Your task to perform on an android device: Go to privacy settings Image 0: 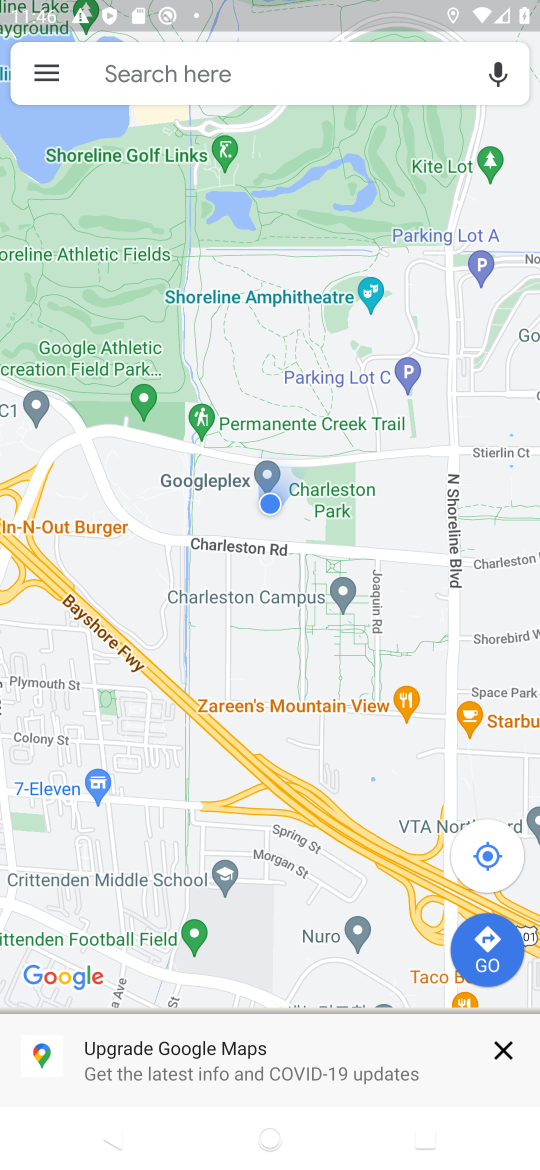
Step 0: click (287, 167)
Your task to perform on an android device: Go to privacy settings Image 1: 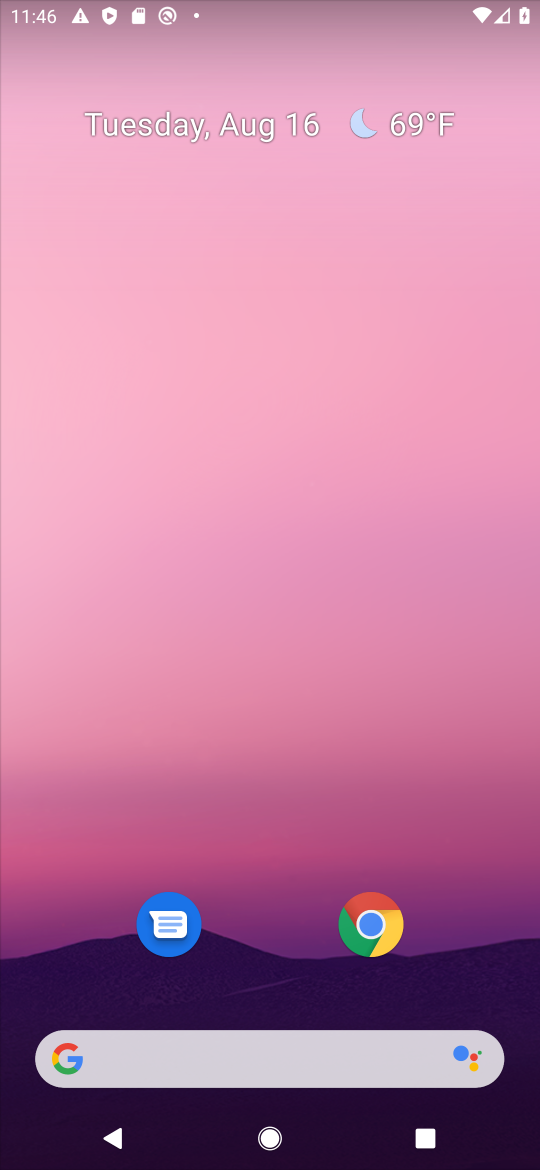
Step 1: drag from (251, 993) to (304, 81)
Your task to perform on an android device: Go to privacy settings Image 2: 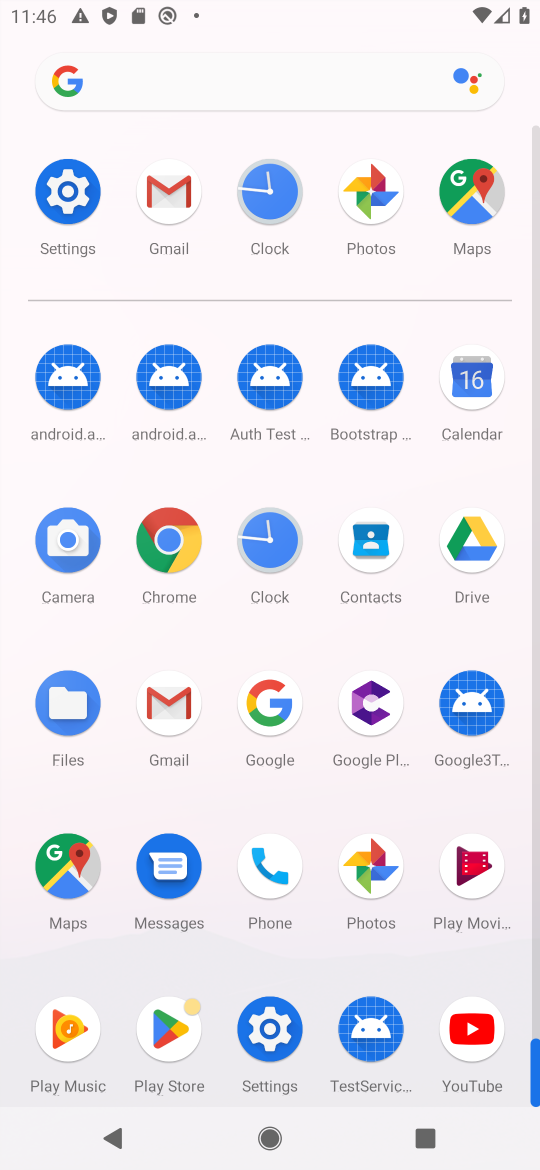
Step 2: click (57, 211)
Your task to perform on an android device: Go to privacy settings Image 3: 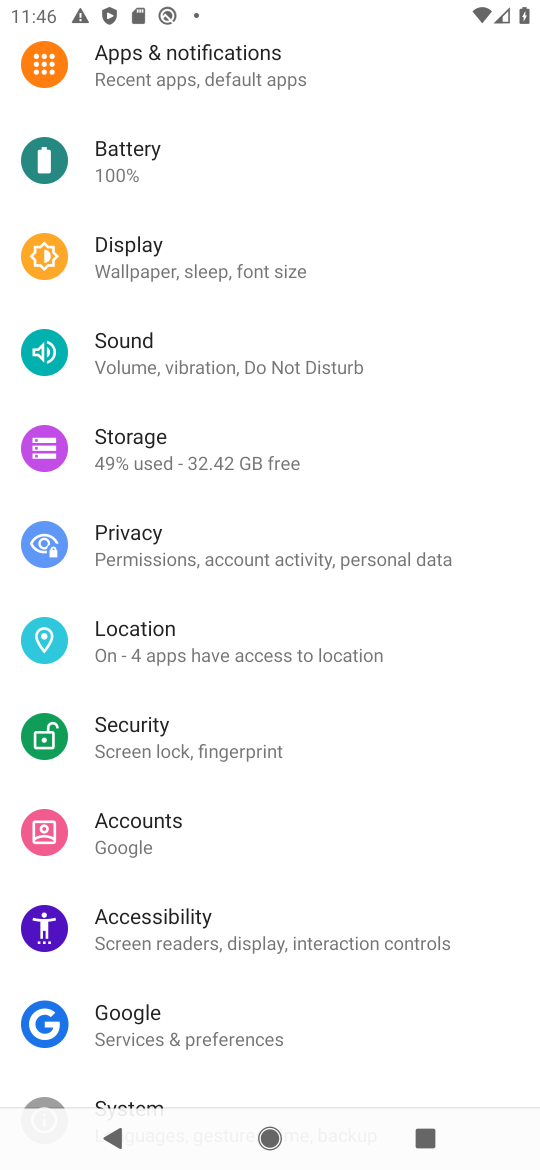
Step 3: click (237, 574)
Your task to perform on an android device: Go to privacy settings Image 4: 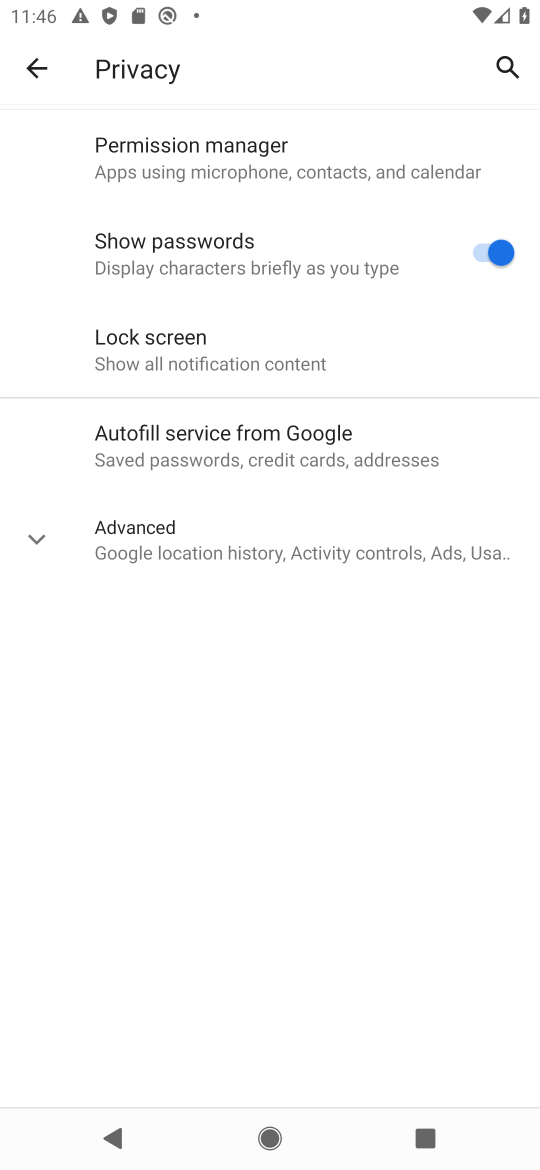
Step 4: task complete